Your task to perform on an android device: toggle airplane mode Image 0: 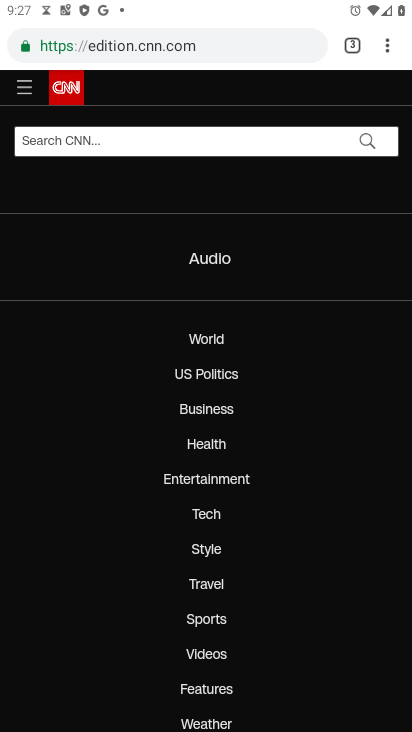
Step 0: click (173, 658)
Your task to perform on an android device: toggle airplane mode Image 1: 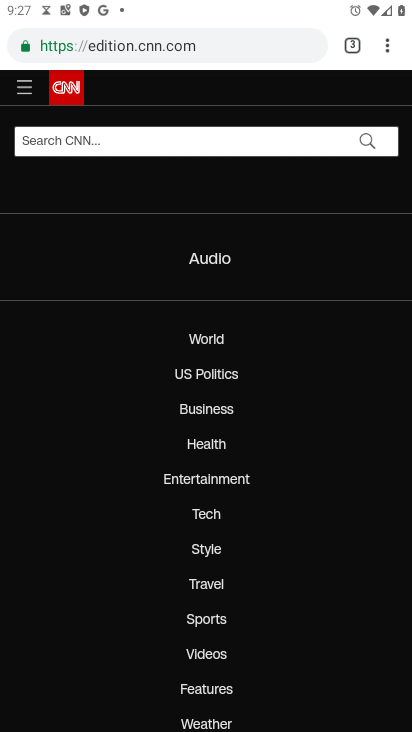
Step 1: press home button
Your task to perform on an android device: toggle airplane mode Image 2: 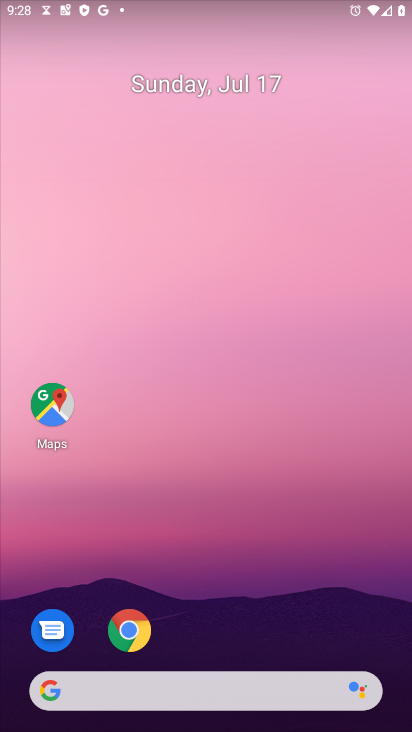
Step 2: drag from (256, 613) to (201, 148)
Your task to perform on an android device: toggle airplane mode Image 3: 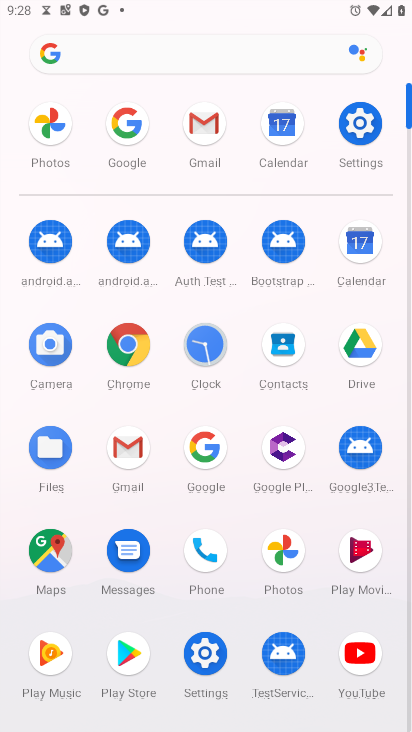
Step 3: click (360, 134)
Your task to perform on an android device: toggle airplane mode Image 4: 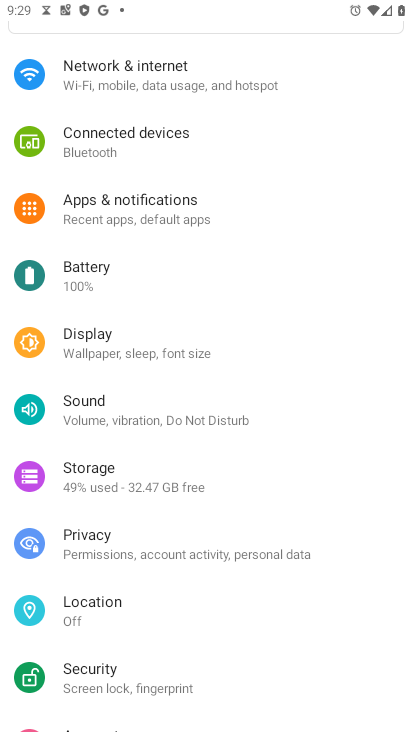
Step 4: click (134, 74)
Your task to perform on an android device: toggle airplane mode Image 5: 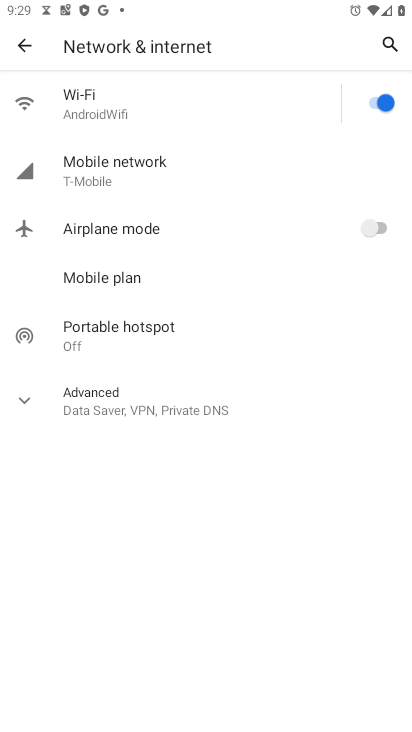
Step 5: click (385, 230)
Your task to perform on an android device: toggle airplane mode Image 6: 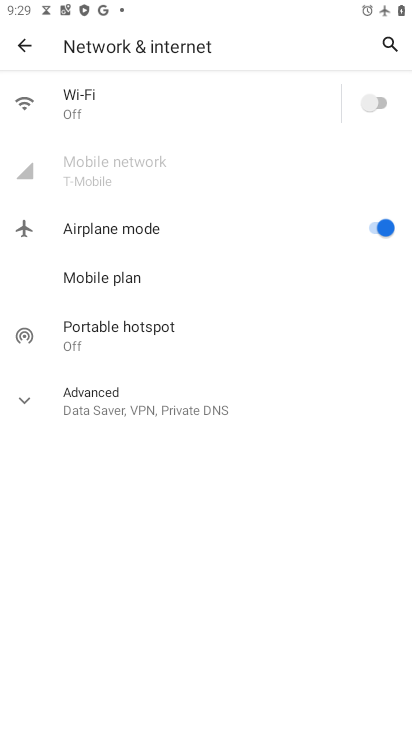
Step 6: task complete